Your task to perform on an android device: Go to notification settings Image 0: 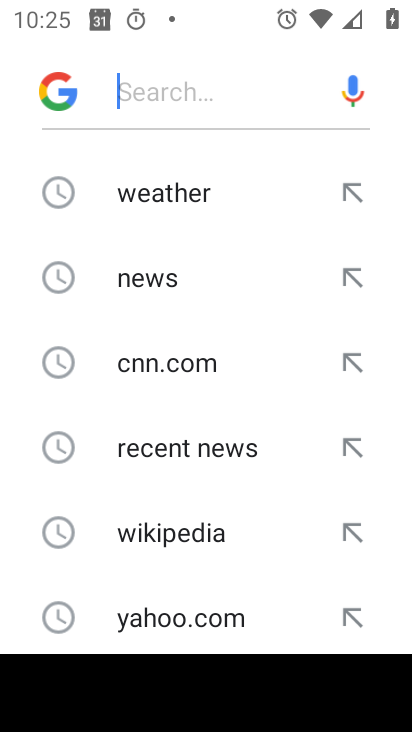
Step 0: press home button
Your task to perform on an android device: Go to notification settings Image 1: 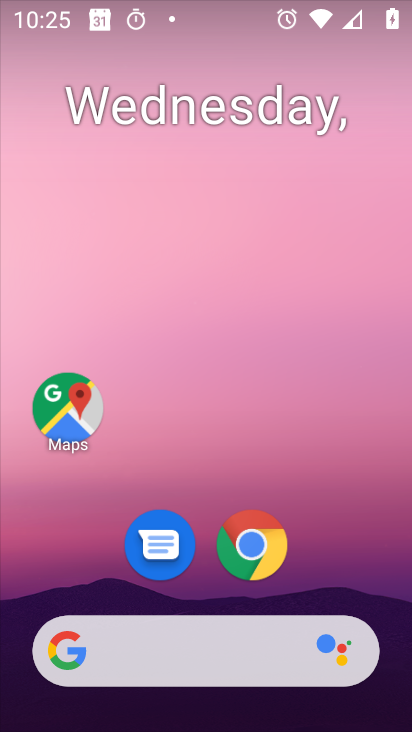
Step 1: drag from (180, 647) to (342, 148)
Your task to perform on an android device: Go to notification settings Image 2: 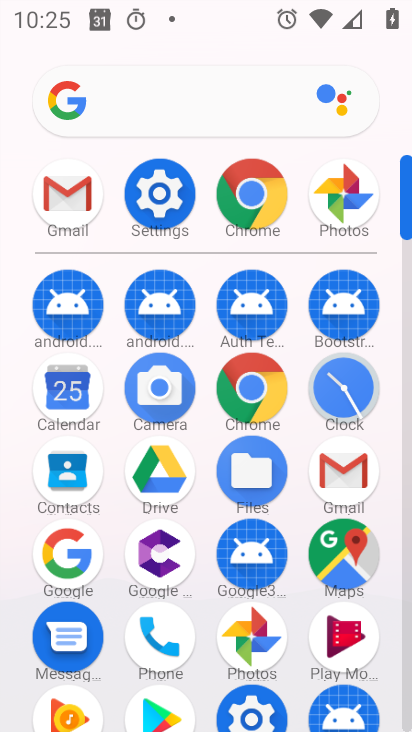
Step 2: click (171, 200)
Your task to perform on an android device: Go to notification settings Image 3: 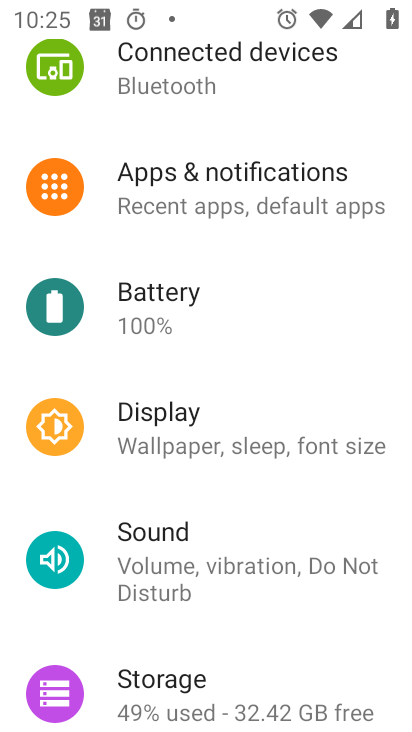
Step 3: click (235, 185)
Your task to perform on an android device: Go to notification settings Image 4: 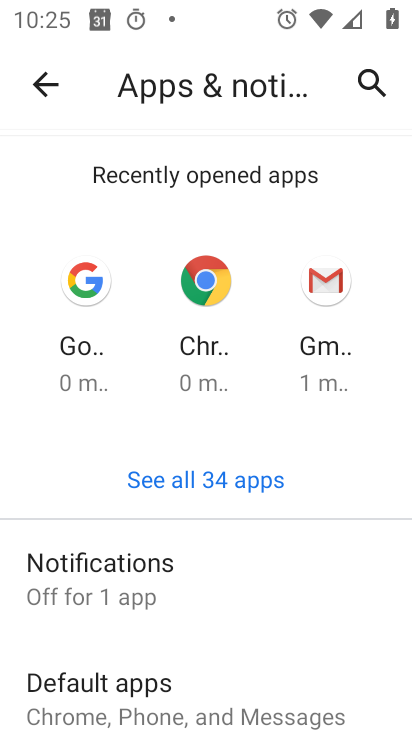
Step 4: click (120, 589)
Your task to perform on an android device: Go to notification settings Image 5: 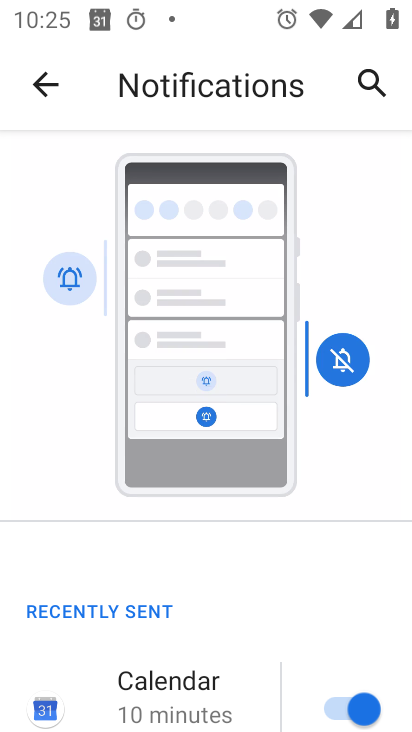
Step 5: task complete